Your task to perform on an android device: View the shopping cart on walmart.com. Add usb-c to usb-a to the cart on walmart.com Image 0: 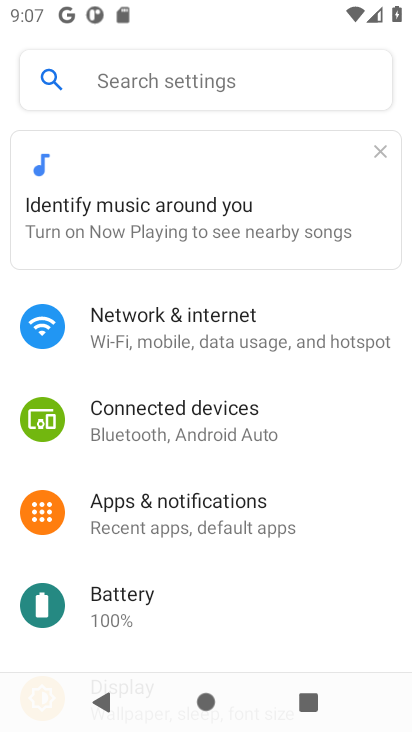
Step 0: press home button
Your task to perform on an android device: View the shopping cart on walmart.com. Add usb-c to usb-a to the cart on walmart.com Image 1: 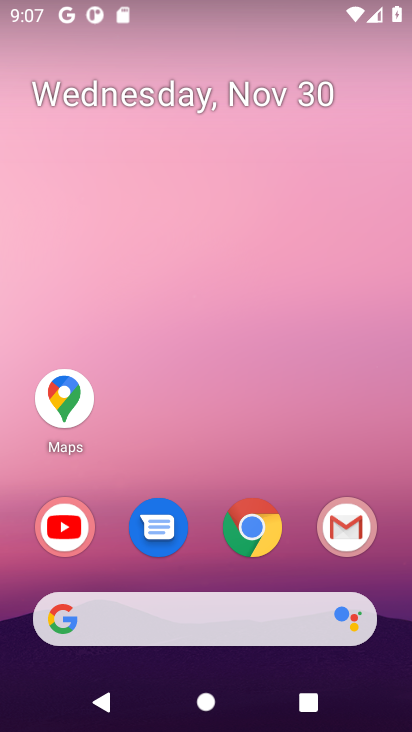
Step 1: click (266, 523)
Your task to perform on an android device: View the shopping cart on walmart.com. Add usb-c to usb-a to the cart on walmart.com Image 2: 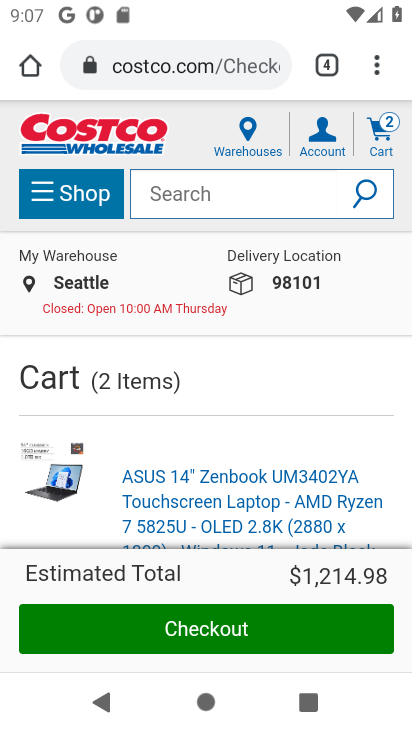
Step 2: click (241, 73)
Your task to perform on an android device: View the shopping cart on walmart.com. Add usb-c to usb-a to the cart on walmart.com Image 3: 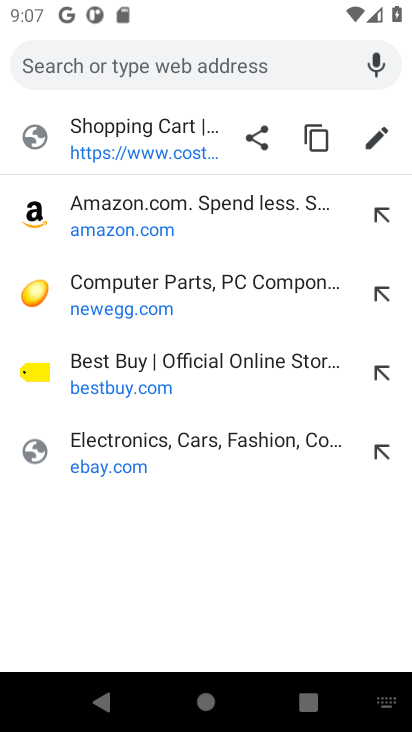
Step 3: type "walmart.com"
Your task to perform on an android device: View the shopping cart on walmart.com. Add usb-c to usb-a to the cart on walmart.com Image 4: 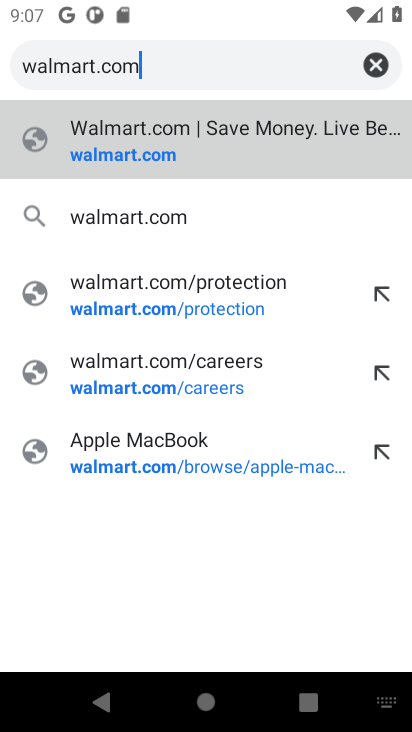
Step 4: press enter
Your task to perform on an android device: View the shopping cart on walmart.com. Add usb-c to usb-a to the cart on walmart.com Image 5: 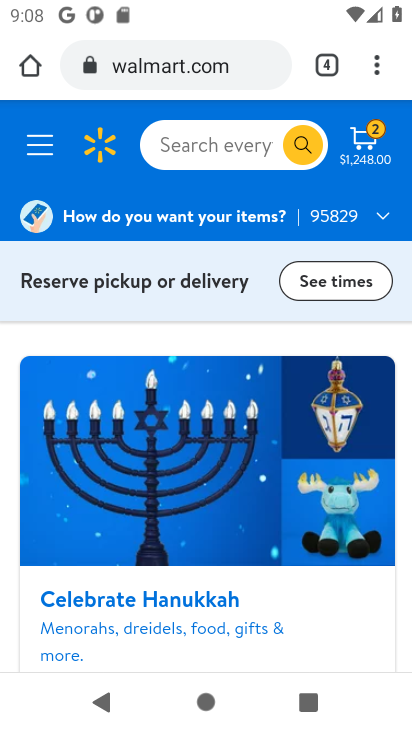
Step 5: click (241, 136)
Your task to perform on an android device: View the shopping cart on walmart.com. Add usb-c to usb-a to the cart on walmart.com Image 6: 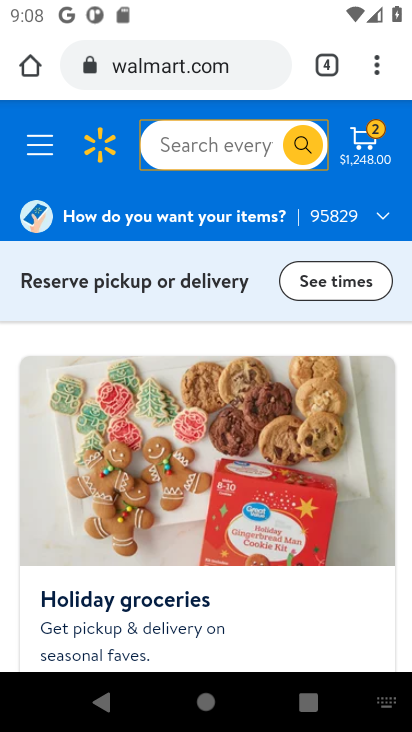
Step 6: type "usb-c to usb-a"
Your task to perform on an android device: View the shopping cart on walmart.com. Add usb-c to usb-a to the cart on walmart.com Image 7: 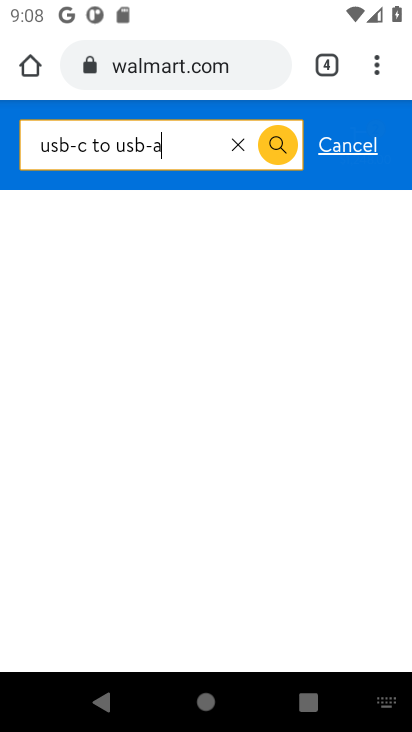
Step 7: press enter
Your task to perform on an android device: View the shopping cart on walmart.com. Add usb-c to usb-a to the cart on walmart.com Image 8: 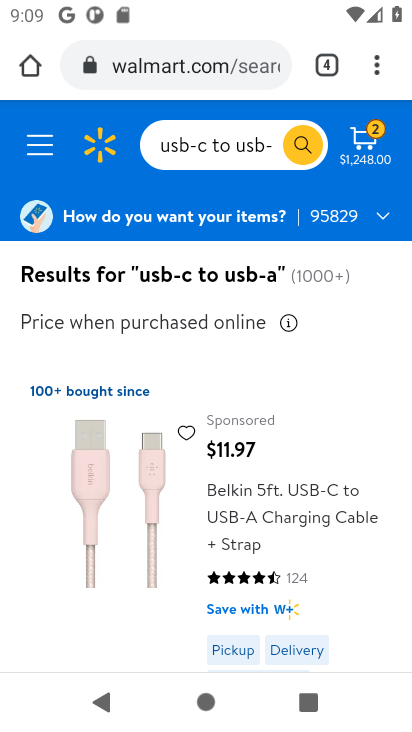
Step 8: click (108, 522)
Your task to perform on an android device: View the shopping cart on walmart.com. Add usb-c to usb-a to the cart on walmart.com Image 9: 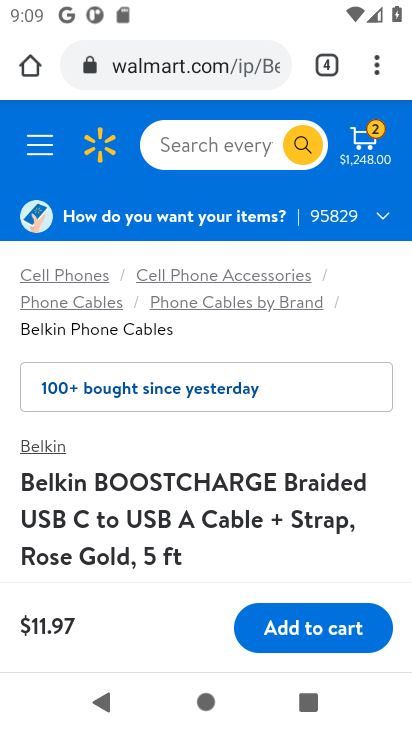
Step 9: click (308, 630)
Your task to perform on an android device: View the shopping cart on walmart.com. Add usb-c to usb-a to the cart on walmart.com Image 10: 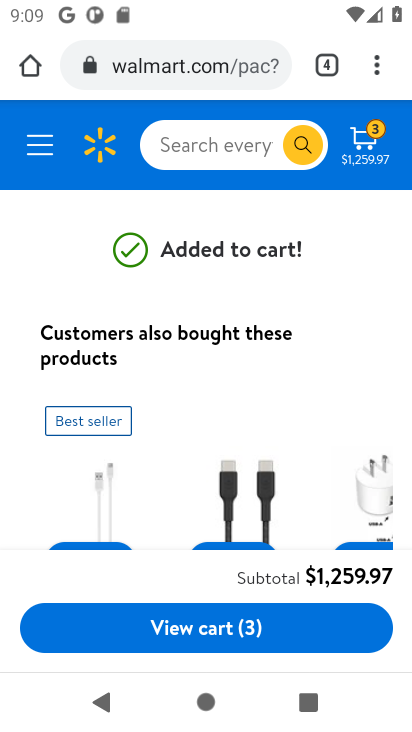
Step 10: task complete